Your task to perform on an android device: Go to Wikipedia Image 0: 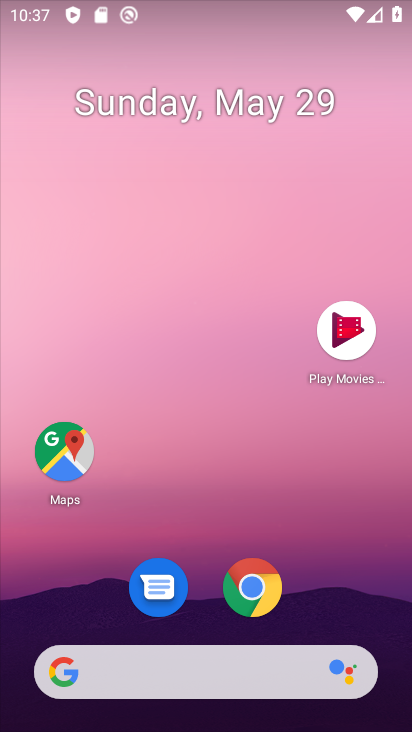
Step 0: click (265, 582)
Your task to perform on an android device: Go to Wikipedia Image 1: 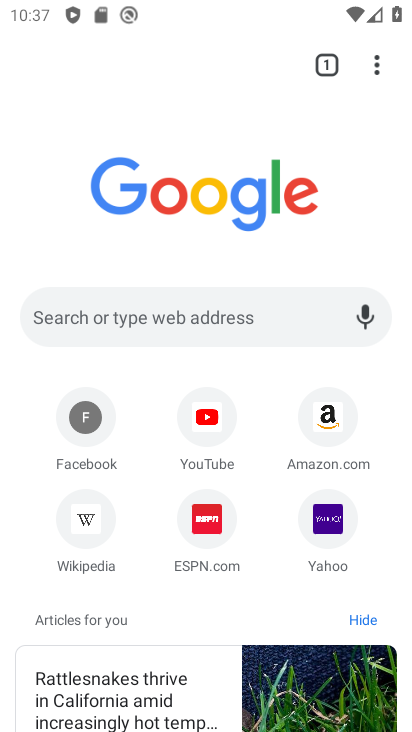
Step 1: click (90, 546)
Your task to perform on an android device: Go to Wikipedia Image 2: 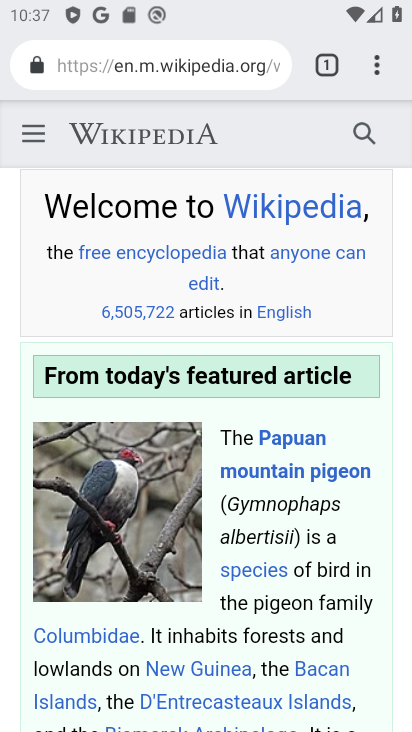
Step 2: task complete